Your task to perform on an android device: Open Google Chrome and open the bookmarks view Image 0: 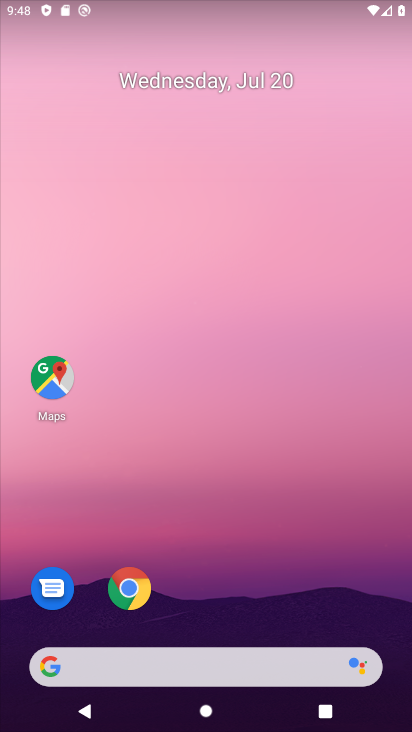
Step 0: click (133, 589)
Your task to perform on an android device: Open Google Chrome and open the bookmarks view Image 1: 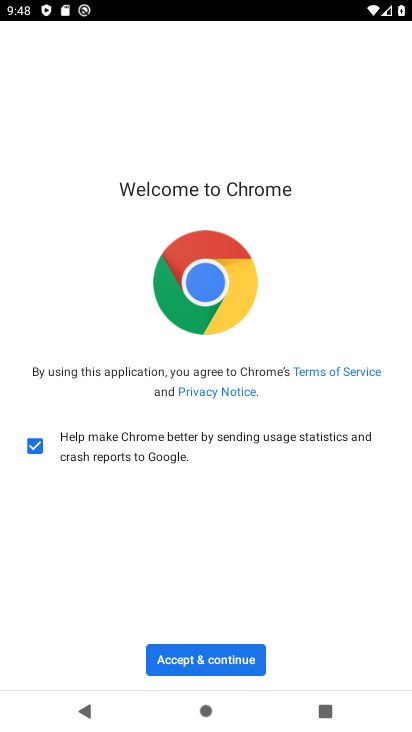
Step 1: click (190, 650)
Your task to perform on an android device: Open Google Chrome and open the bookmarks view Image 2: 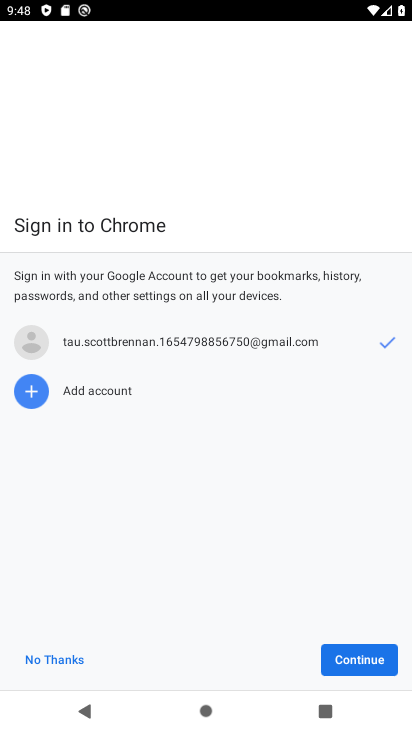
Step 2: click (354, 657)
Your task to perform on an android device: Open Google Chrome and open the bookmarks view Image 3: 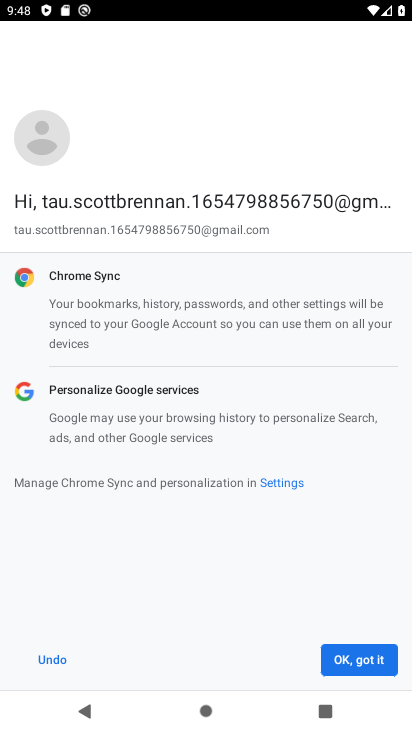
Step 3: click (360, 659)
Your task to perform on an android device: Open Google Chrome and open the bookmarks view Image 4: 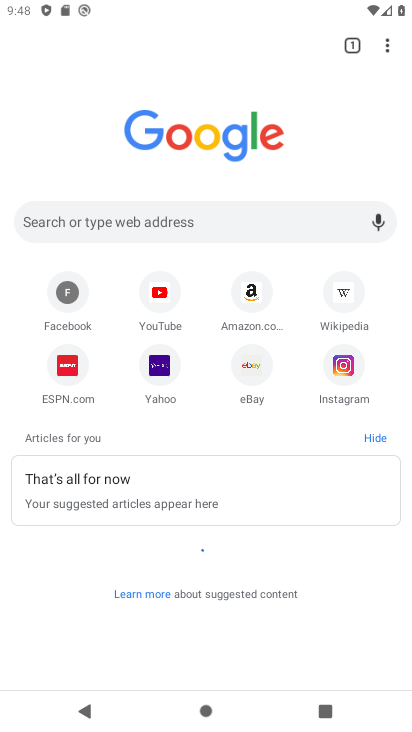
Step 4: click (389, 49)
Your task to perform on an android device: Open Google Chrome and open the bookmarks view Image 5: 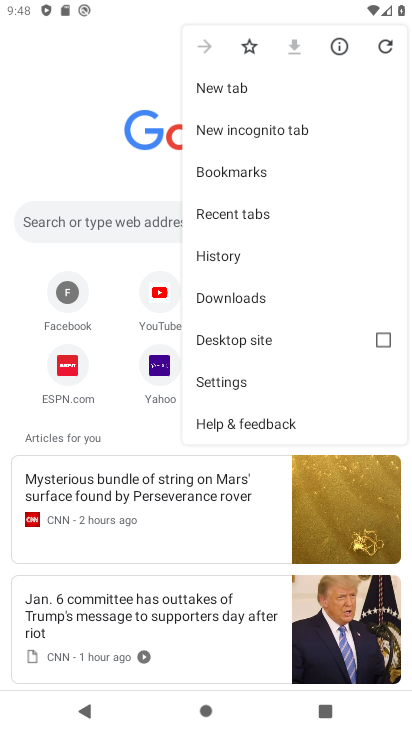
Step 5: click (227, 173)
Your task to perform on an android device: Open Google Chrome and open the bookmarks view Image 6: 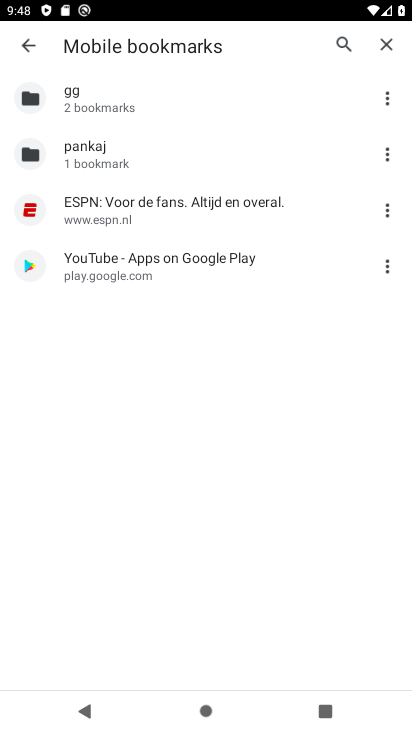
Step 6: task complete